Your task to perform on an android device: turn on javascript in the chrome app Image 0: 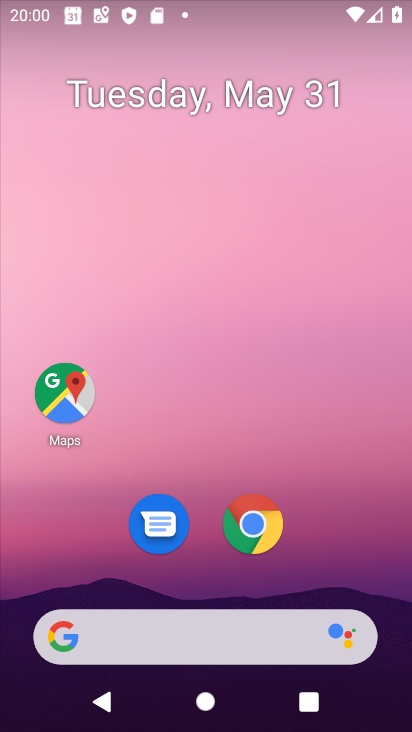
Step 0: click (250, 519)
Your task to perform on an android device: turn on javascript in the chrome app Image 1: 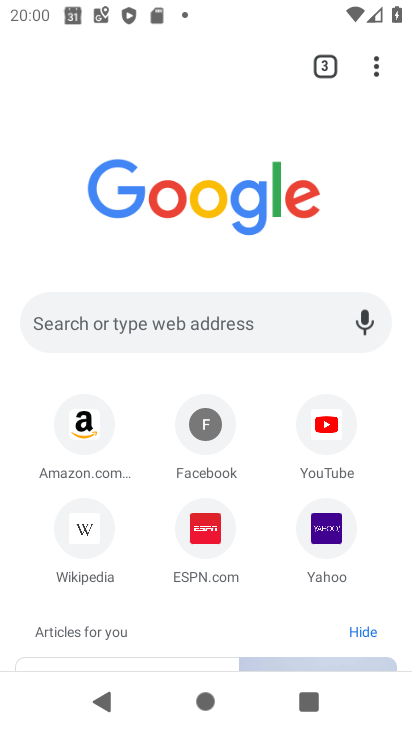
Step 1: click (372, 72)
Your task to perform on an android device: turn on javascript in the chrome app Image 2: 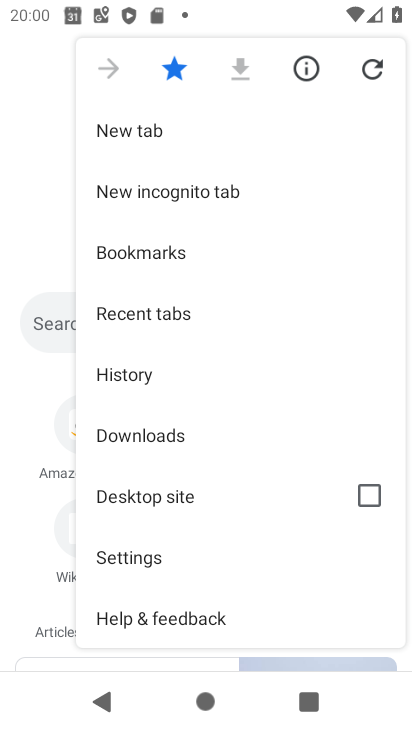
Step 2: click (192, 553)
Your task to perform on an android device: turn on javascript in the chrome app Image 3: 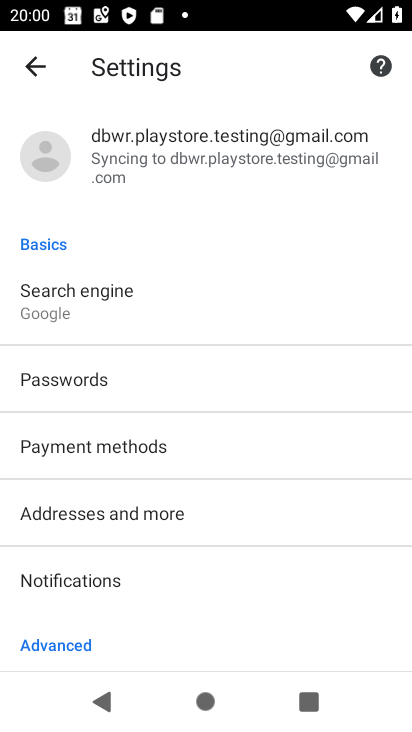
Step 3: drag from (222, 499) to (215, 163)
Your task to perform on an android device: turn on javascript in the chrome app Image 4: 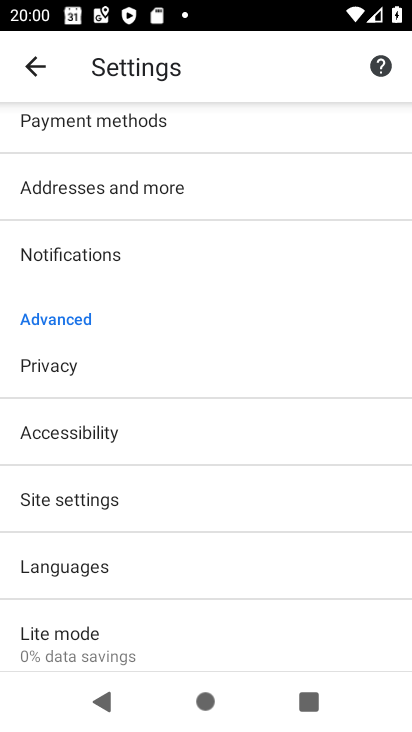
Step 4: click (242, 490)
Your task to perform on an android device: turn on javascript in the chrome app Image 5: 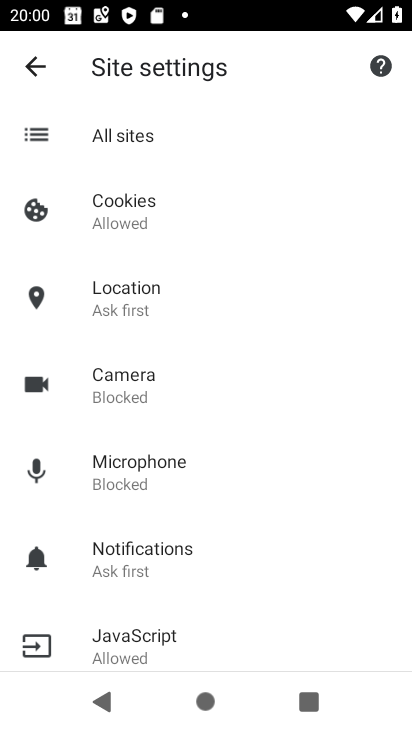
Step 5: click (228, 635)
Your task to perform on an android device: turn on javascript in the chrome app Image 6: 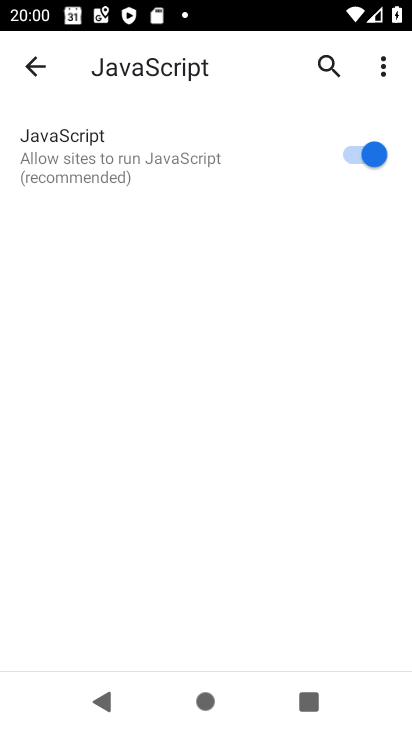
Step 6: click (359, 147)
Your task to perform on an android device: turn on javascript in the chrome app Image 7: 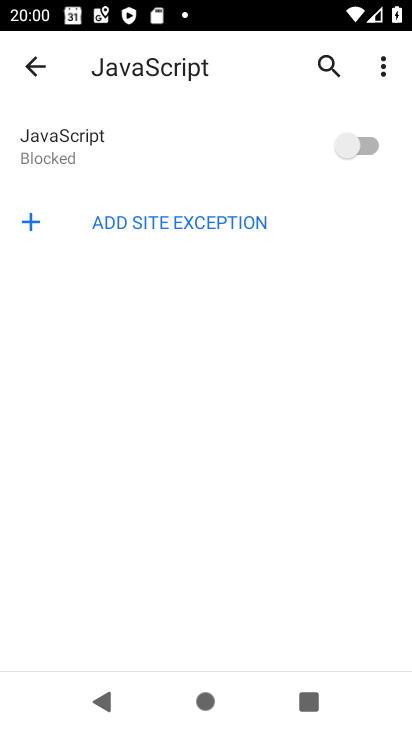
Step 7: task complete